Your task to perform on an android device: install app "AliExpress" Image 0: 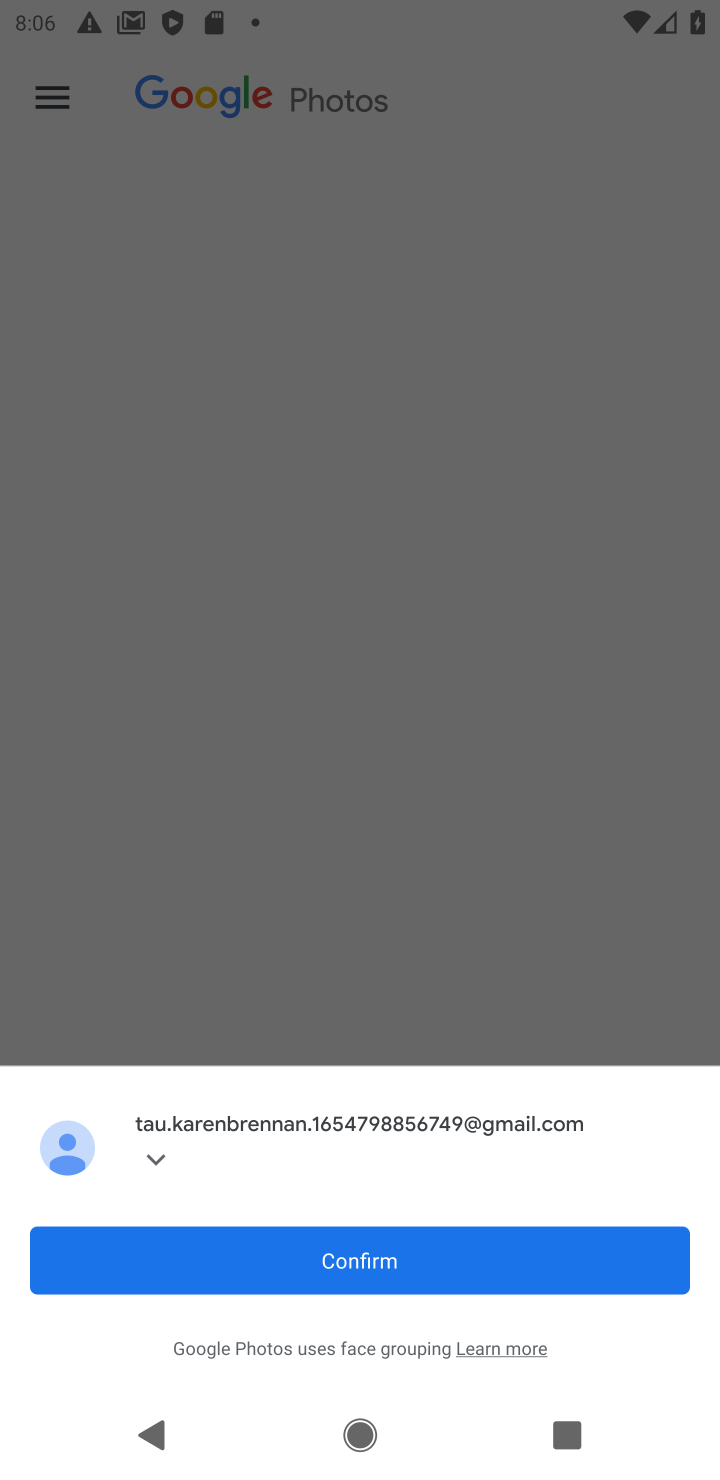
Step 0: press home button
Your task to perform on an android device: install app "AliExpress" Image 1: 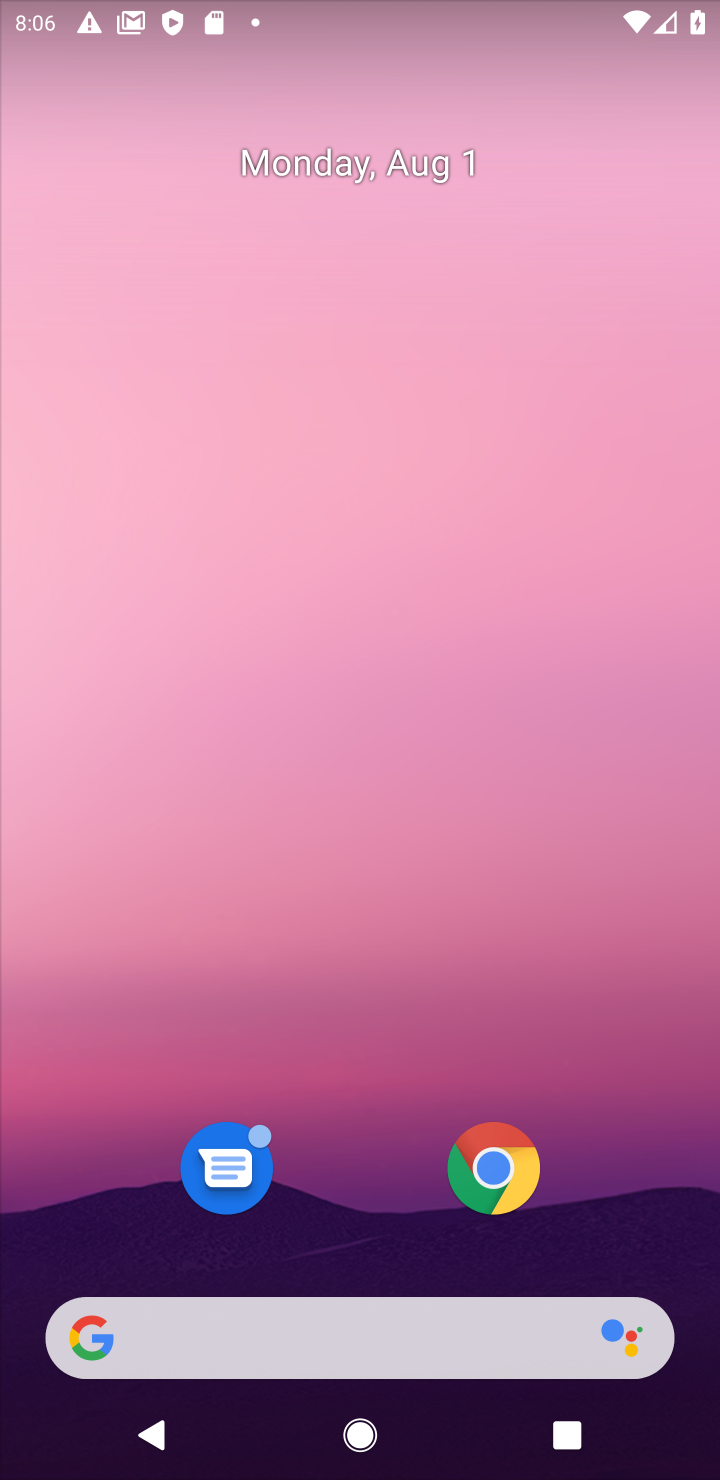
Step 1: drag from (294, 569) to (302, 185)
Your task to perform on an android device: install app "AliExpress" Image 2: 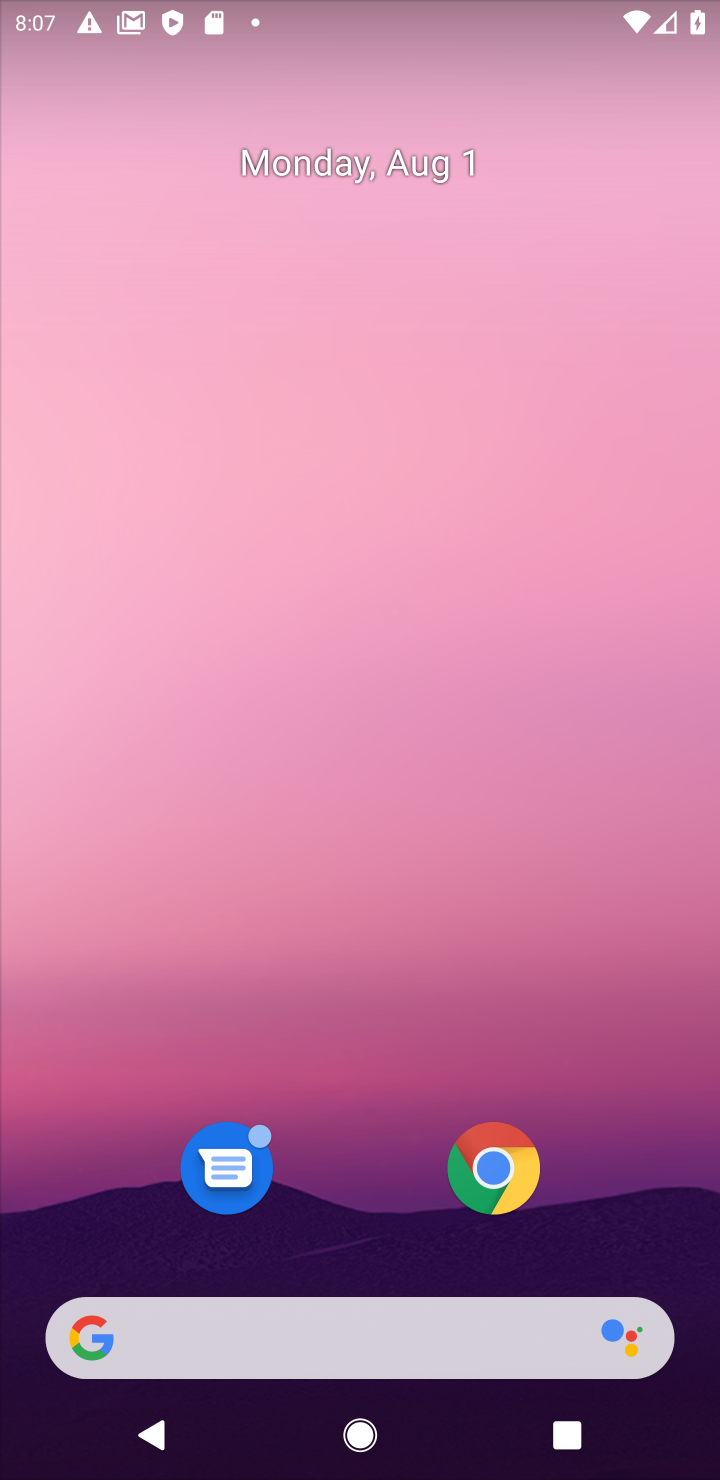
Step 2: drag from (371, 1201) to (406, 91)
Your task to perform on an android device: install app "AliExpress" Image 3: 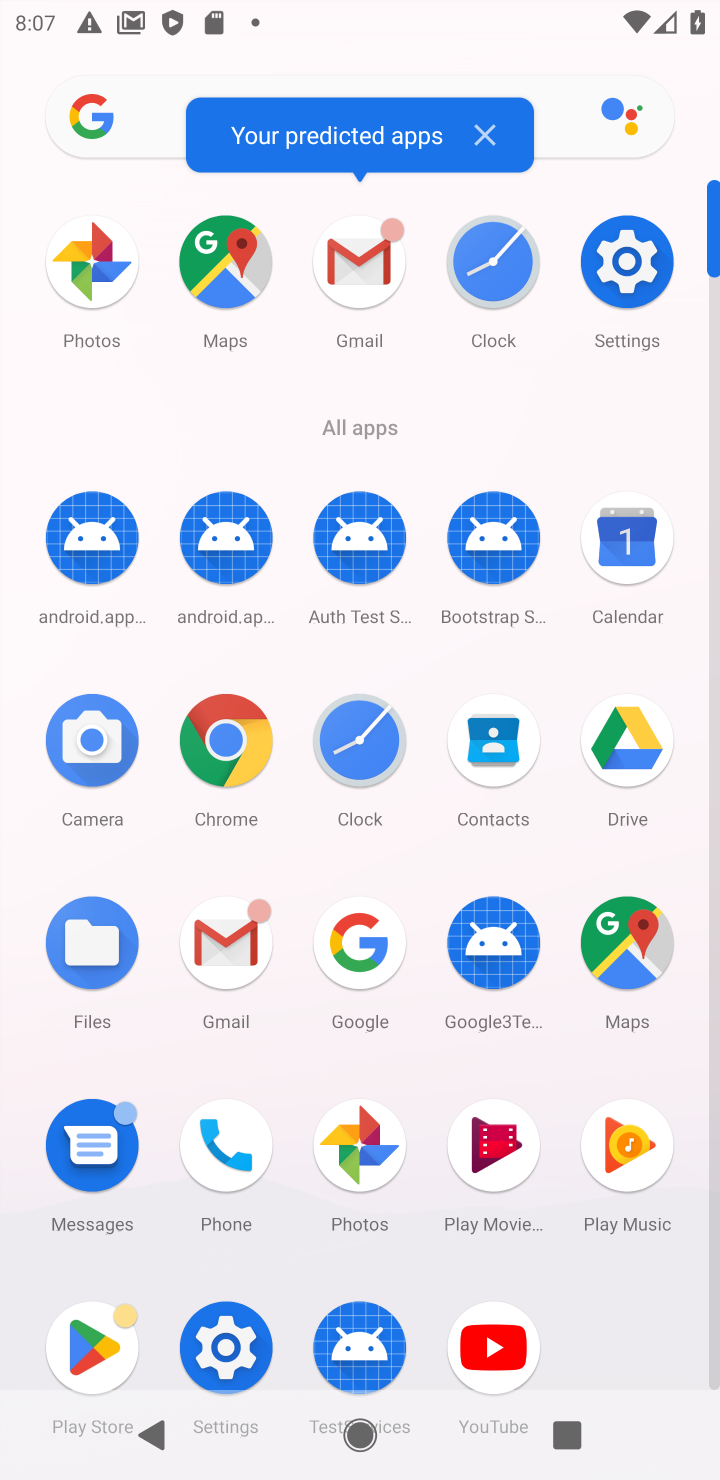
Step 3: click (82, 1326)
Your task to perform on an android device: install app "AliExpress" Image 4: 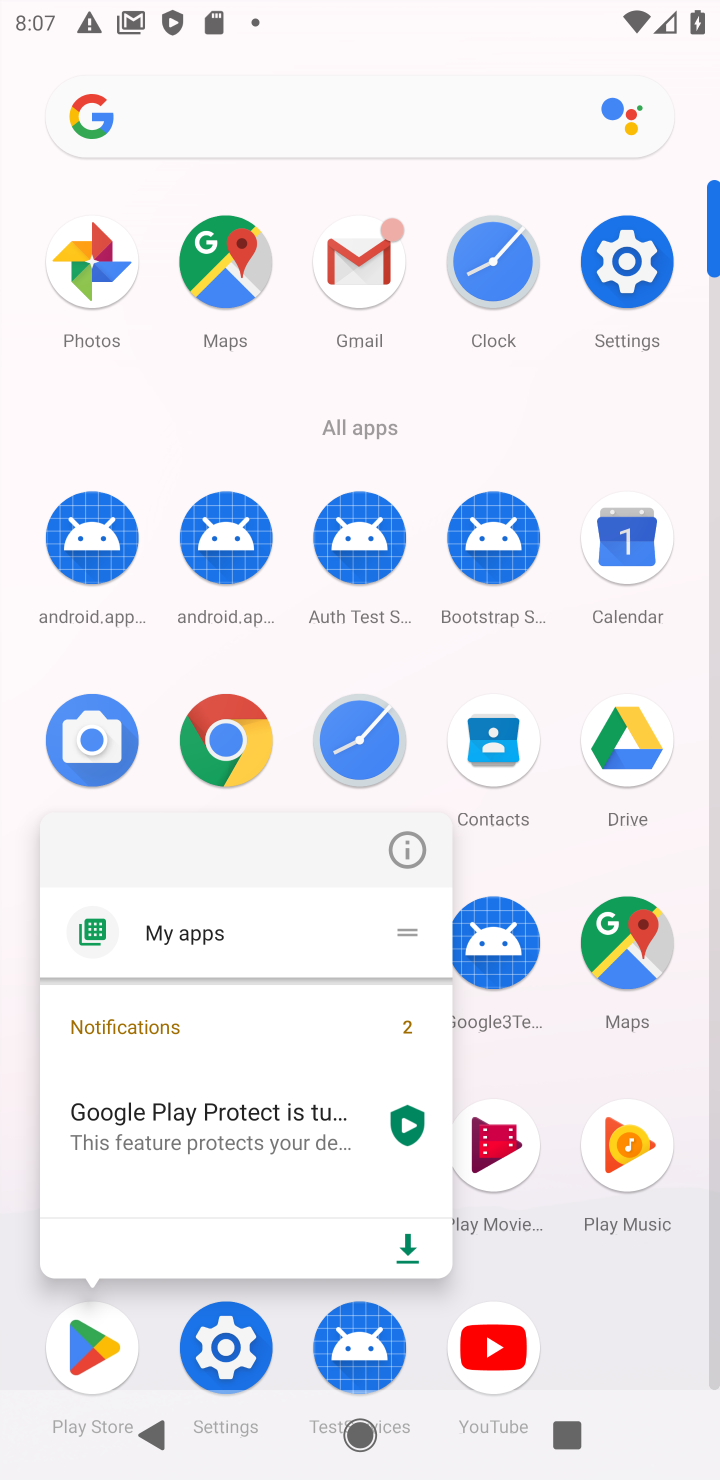
Step 4: click (88, 1314)
Your task to perform on an android device: install app "AliExpress" Image 5: 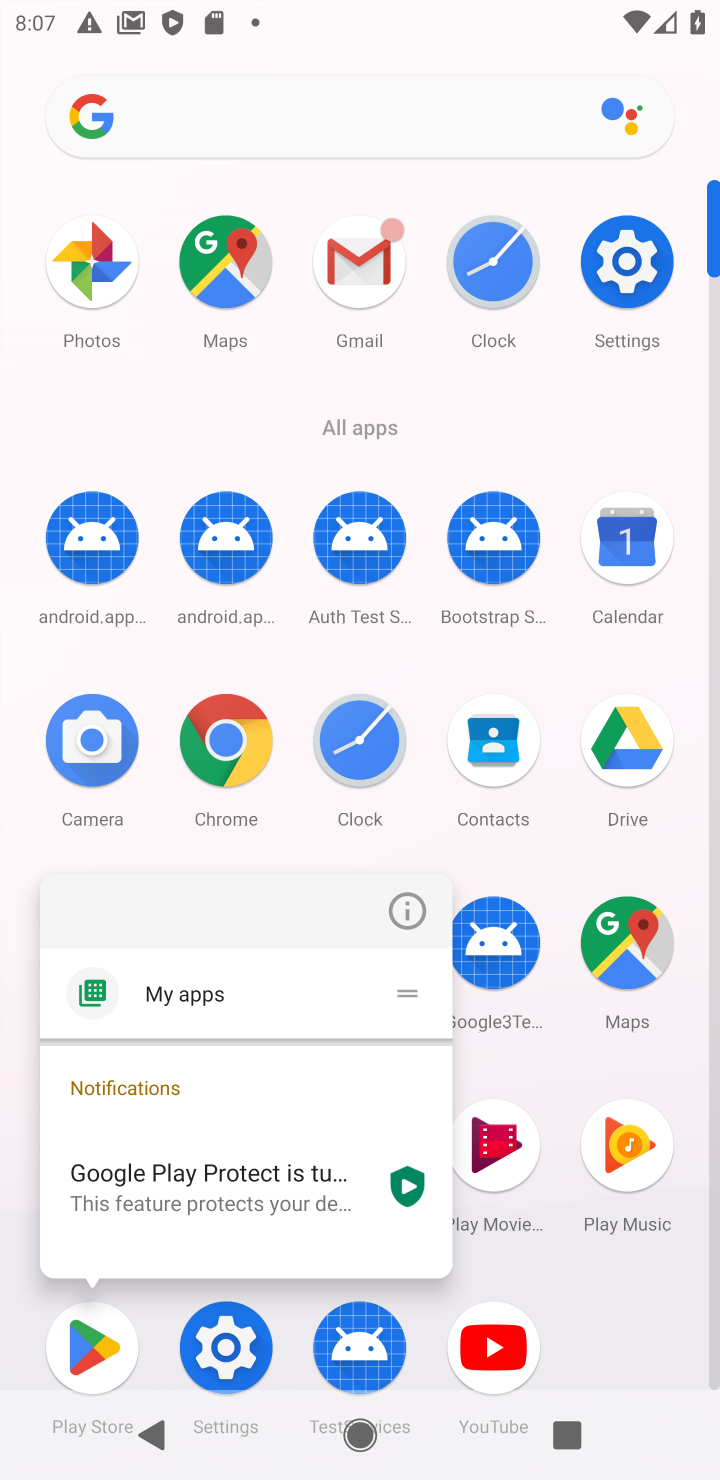
Step 5: click (95, 1325)
Your task to perform on an android device: install app "AliExpress" Image 6: 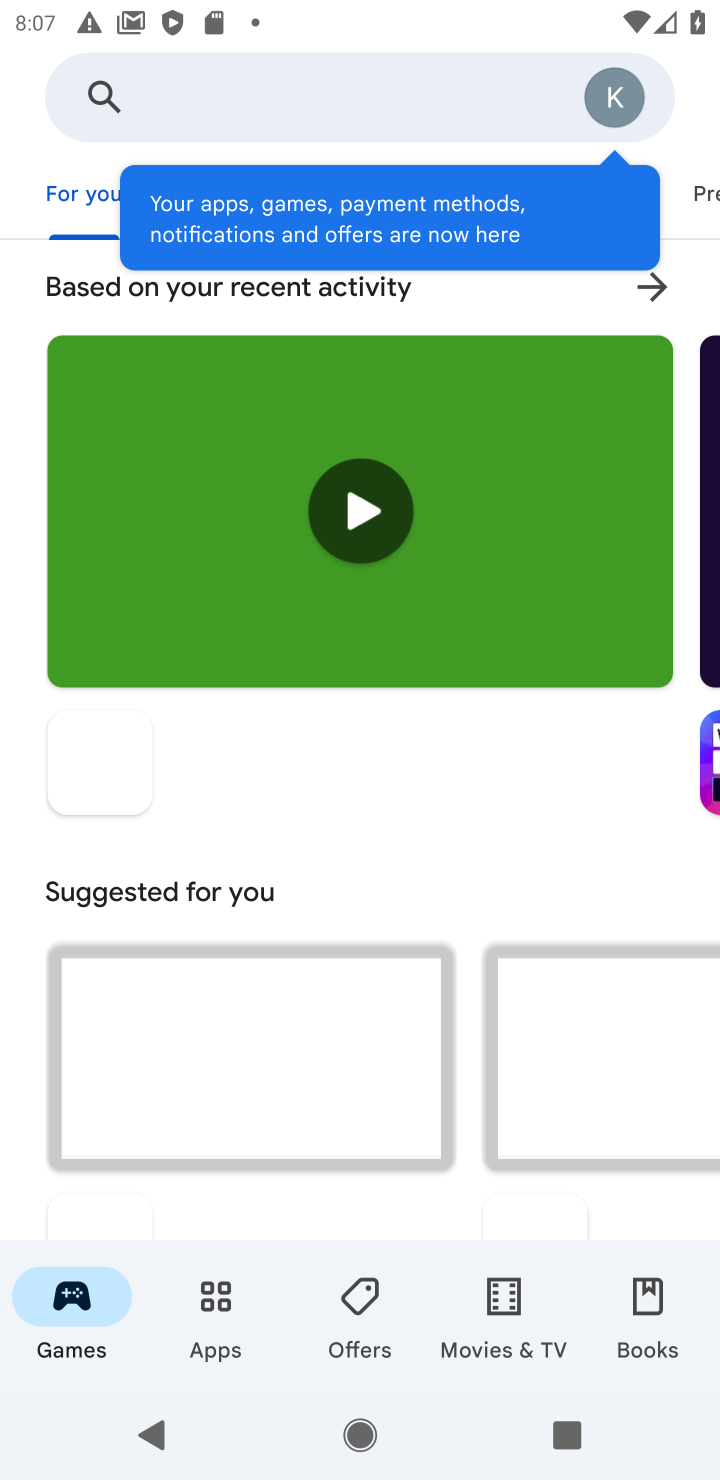
Step 6: click (343, 54)
Your task to perform on an android device: install app "AliExpress" Image 7: 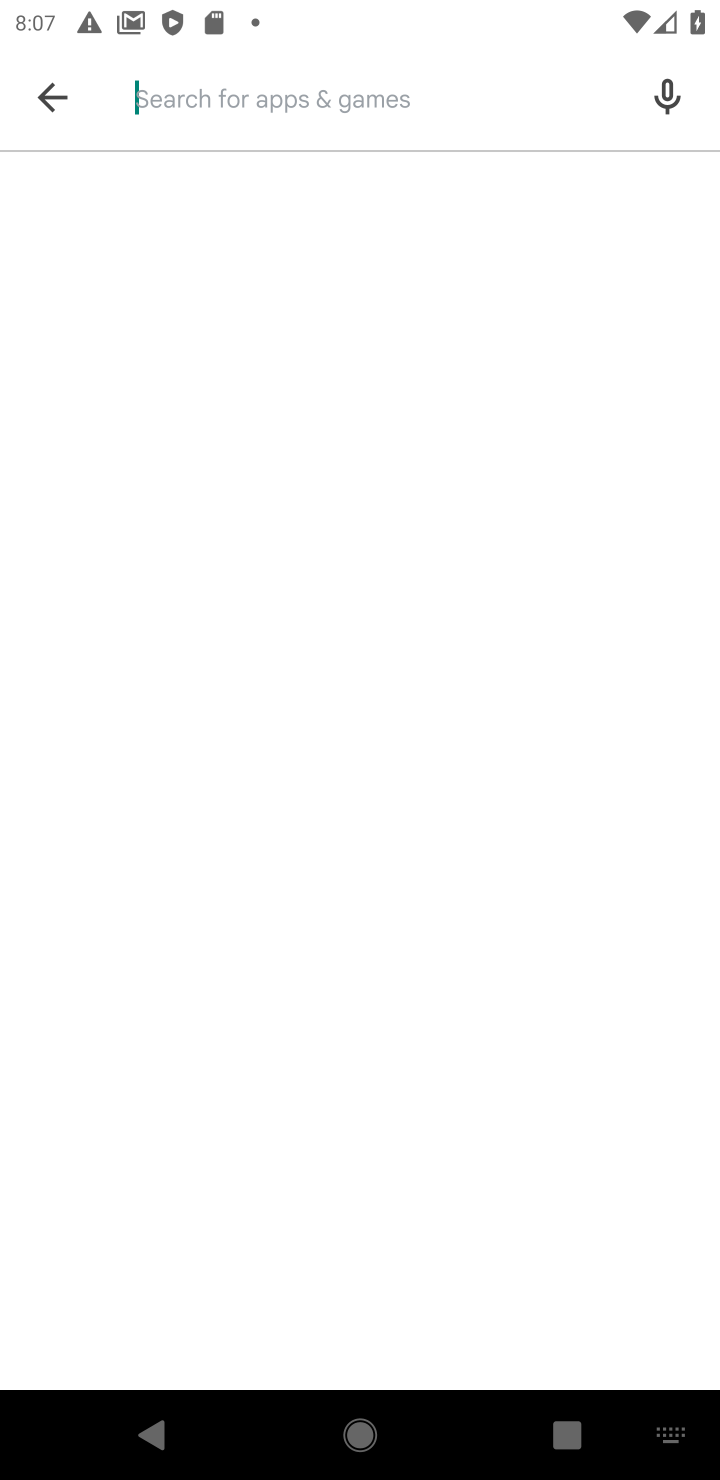
Step 7: type "AliExpress"
Your task to perform on an android device: install app "AliExpress" Image 8: 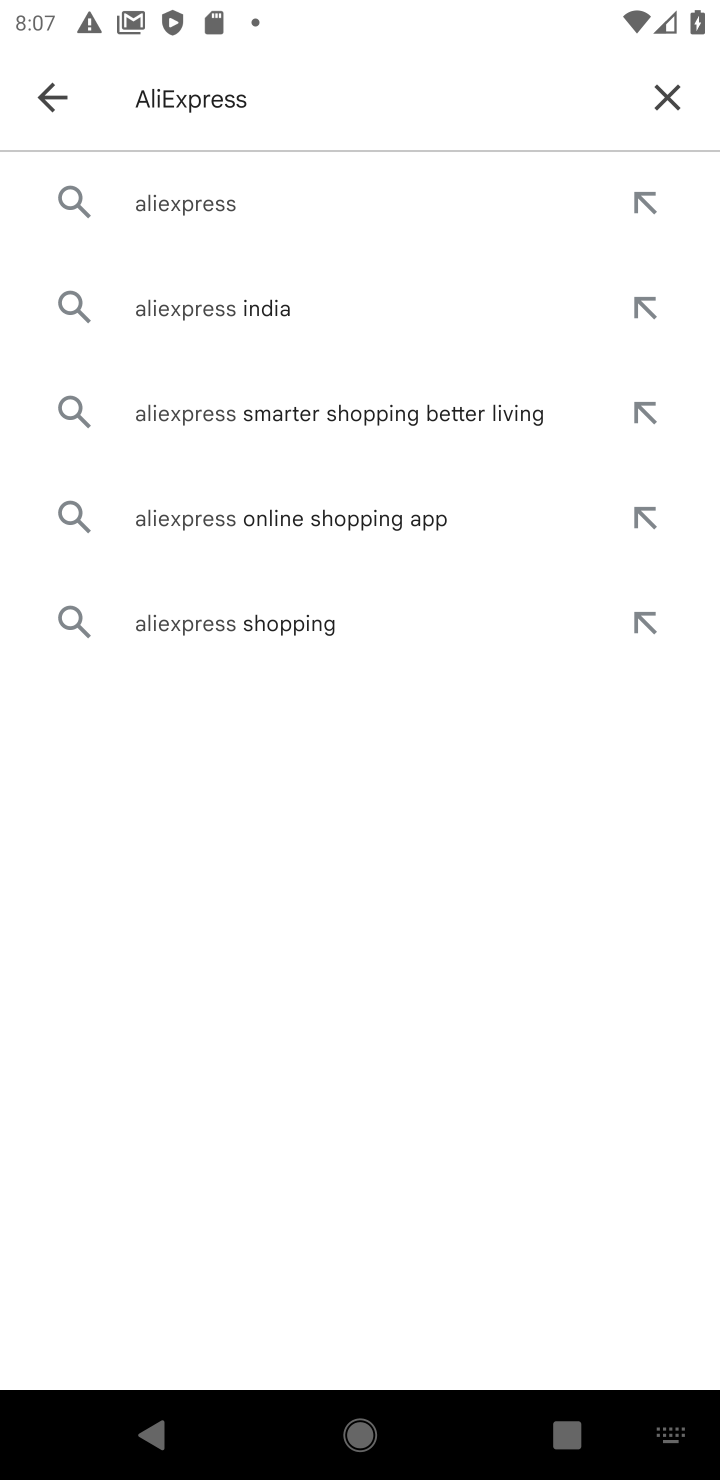
Step 8: click (259, 198)
Your task to perform on an android device: install app "AliExpress" Image 9: 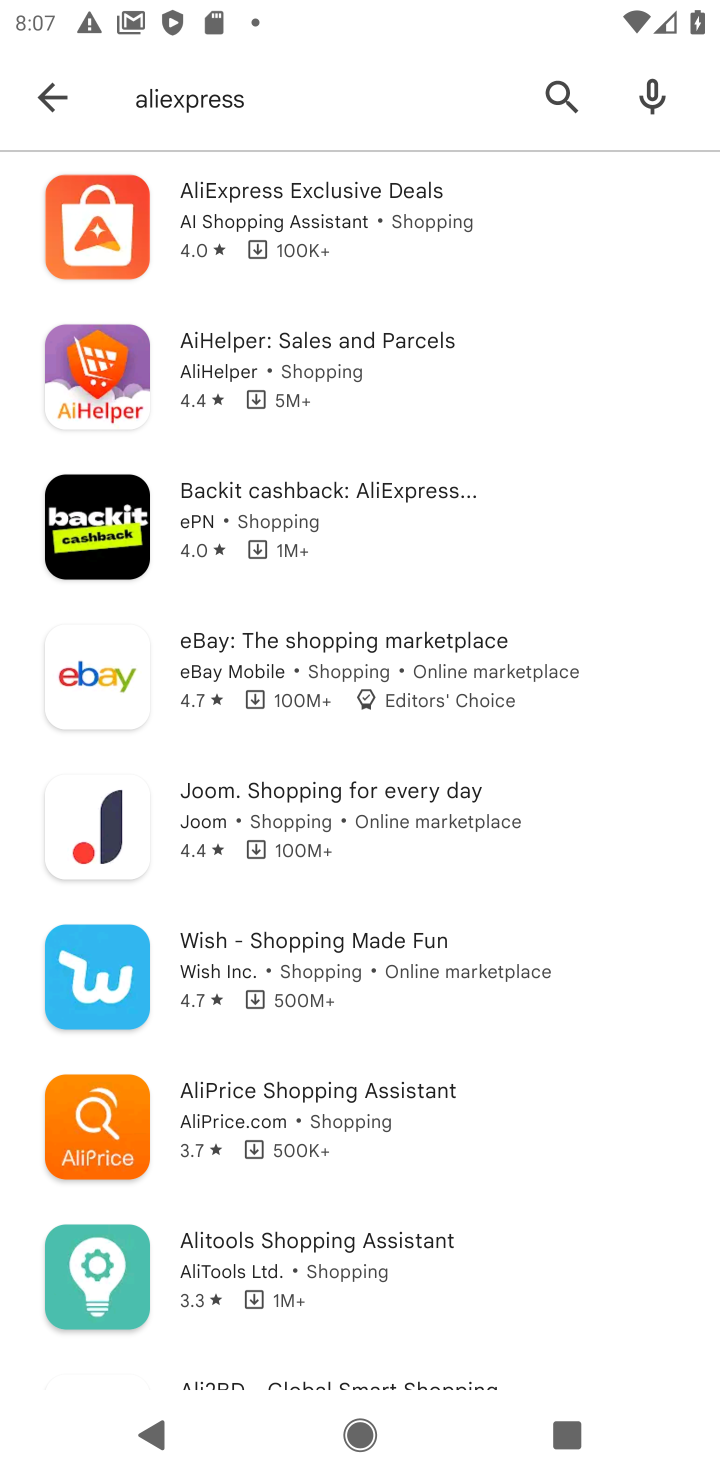
Step 9: click (239, 228)
Your task to perform on an android device: install app "AliExpress" Image 10: 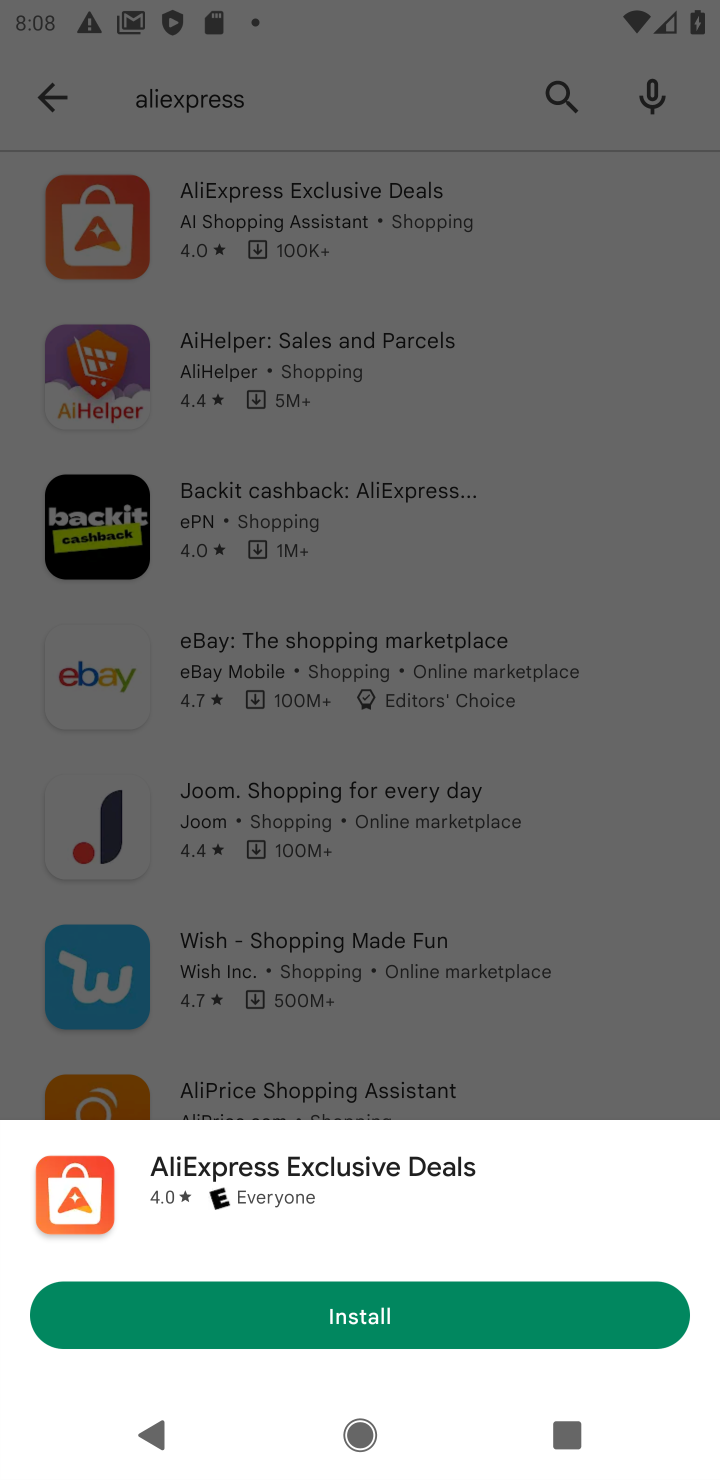
Step 10: click (260, 1323)
Your task to perform on an android device: install app "AliExpress" Image 11: 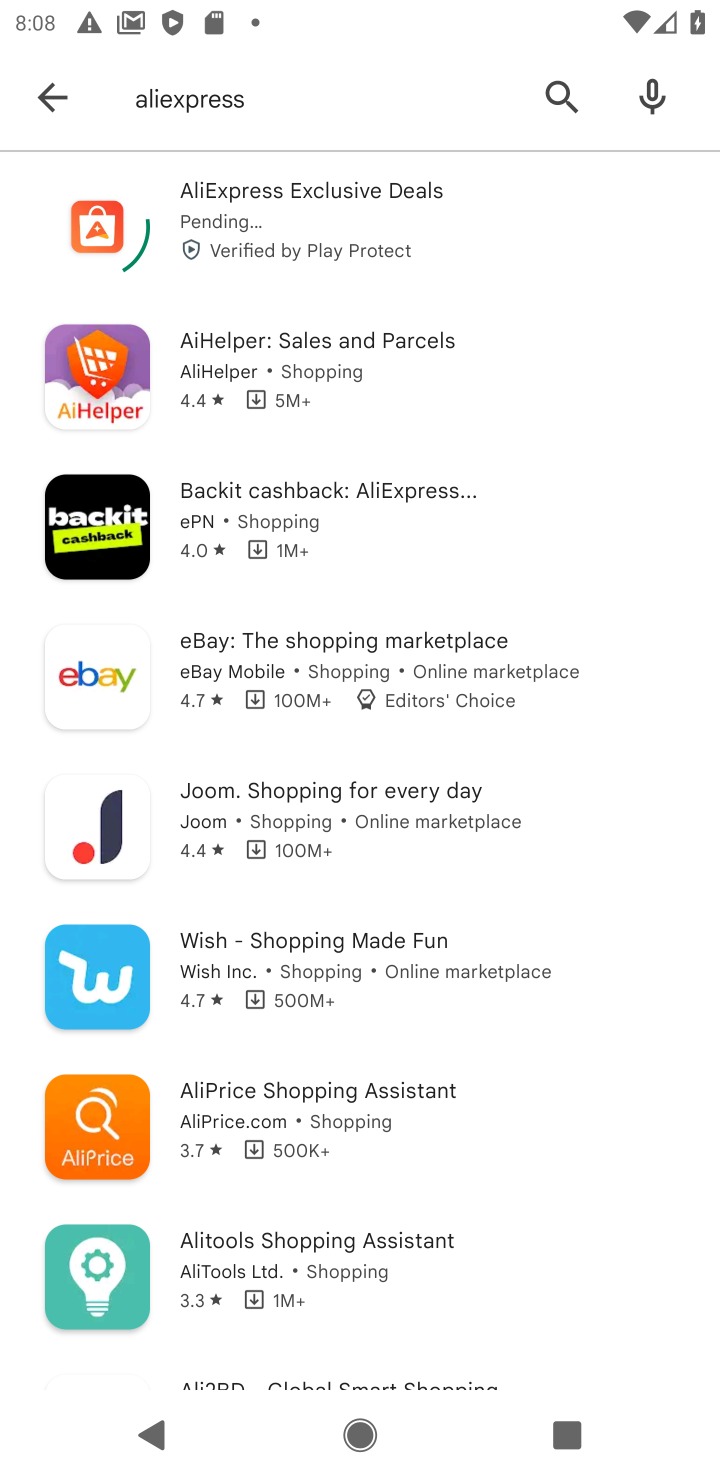
Step 11: click (83, 237)
Your task to perform on an android device: install app "AliExpress" Image 12: 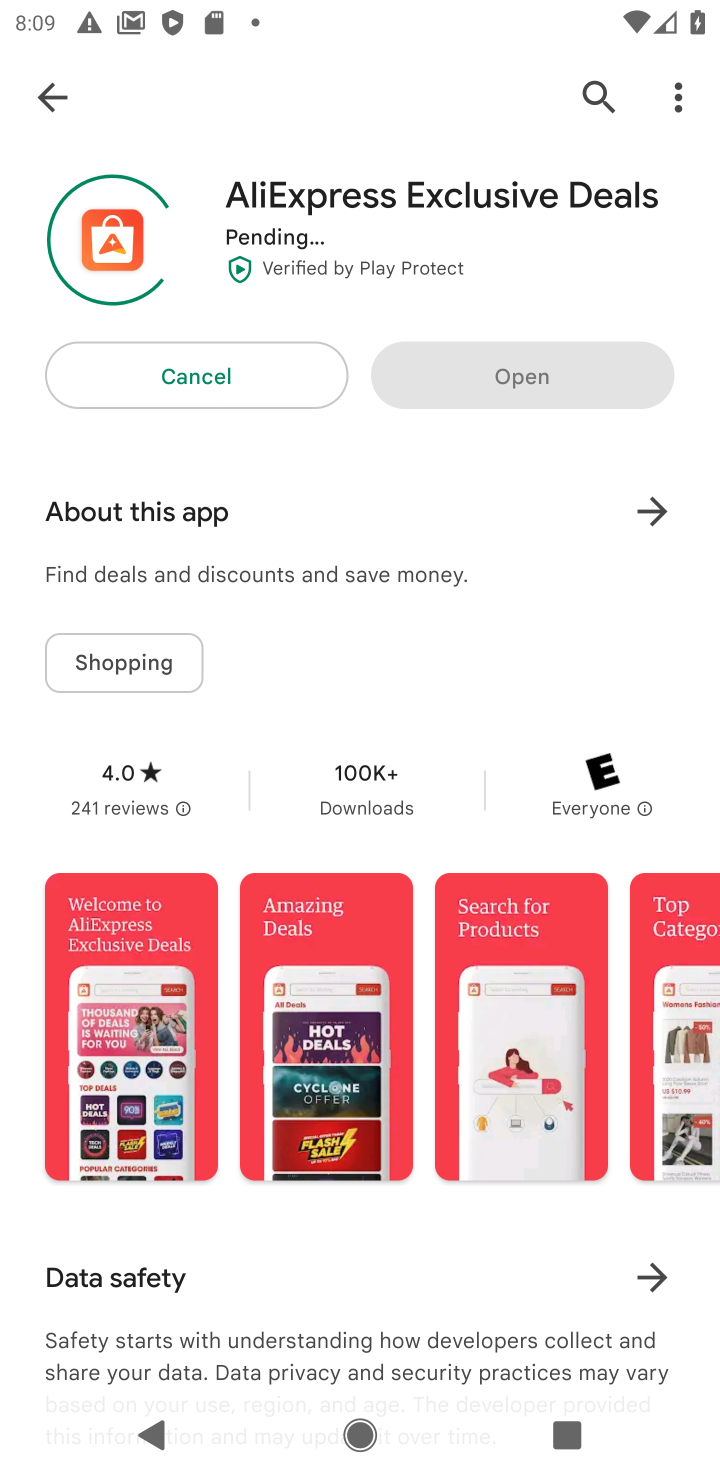
Step 12: click (39, 89)
Your task to perform on an android device: install app "AliExpress" Image 13: 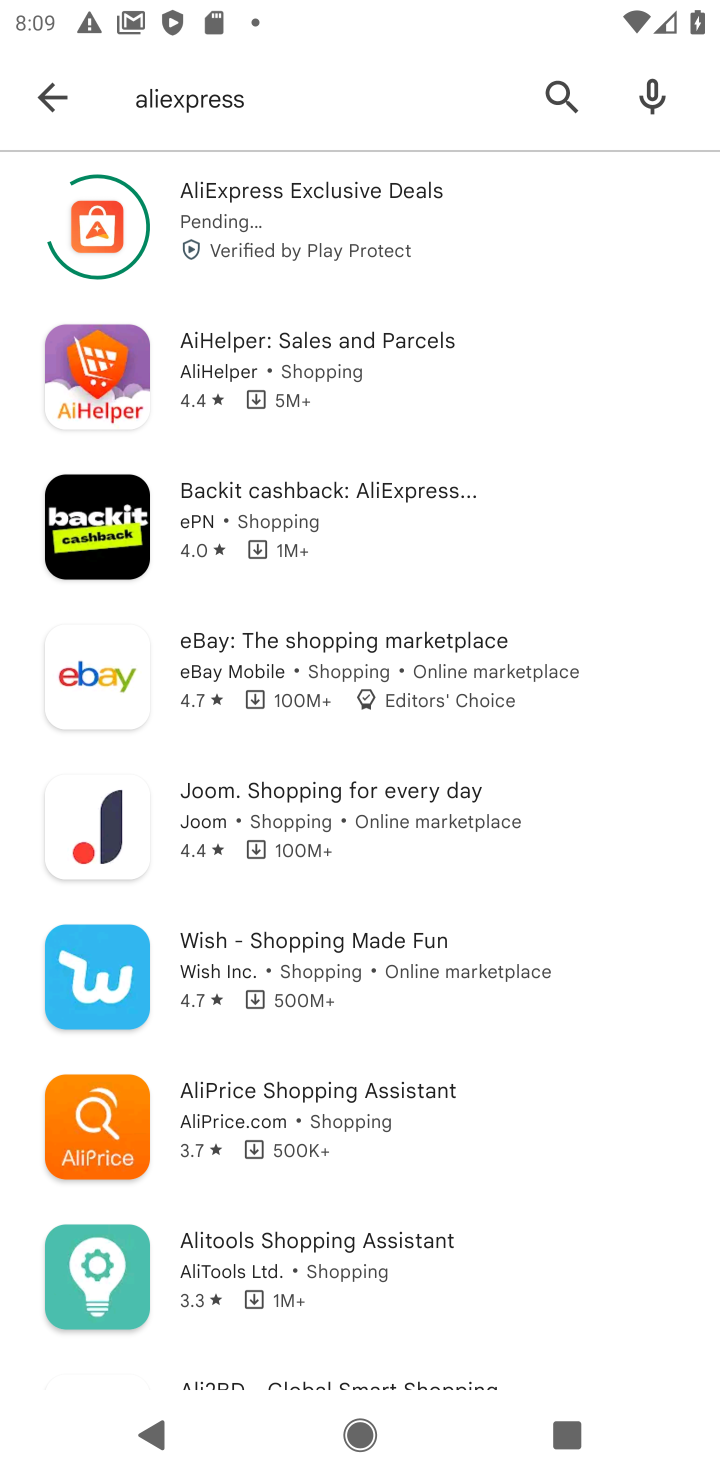
Step 13: click (54, 94)
Your task to perform on an android device: install app "AliExpress" Image 14: 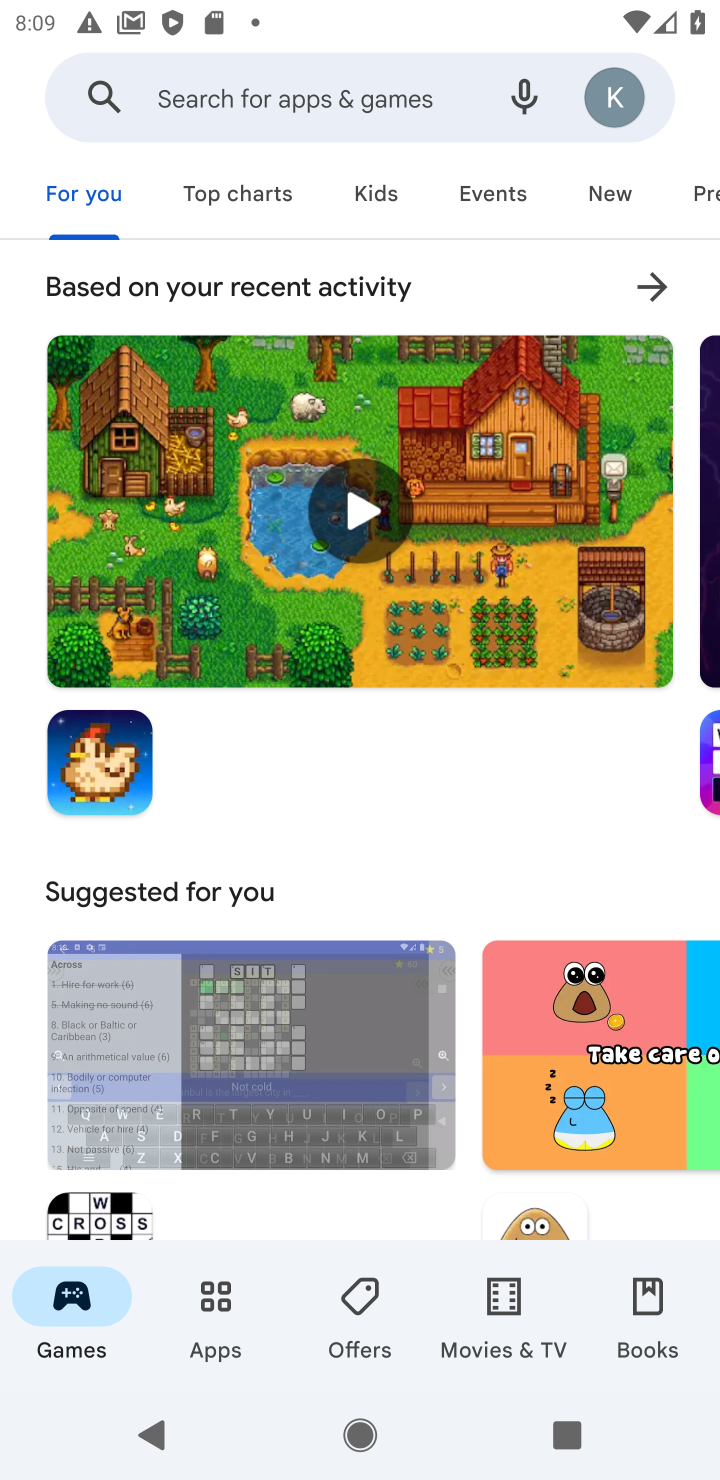
Step 14: click (631, 99)
Your task to perform on an android device: install app "AliExpress" Image 15: 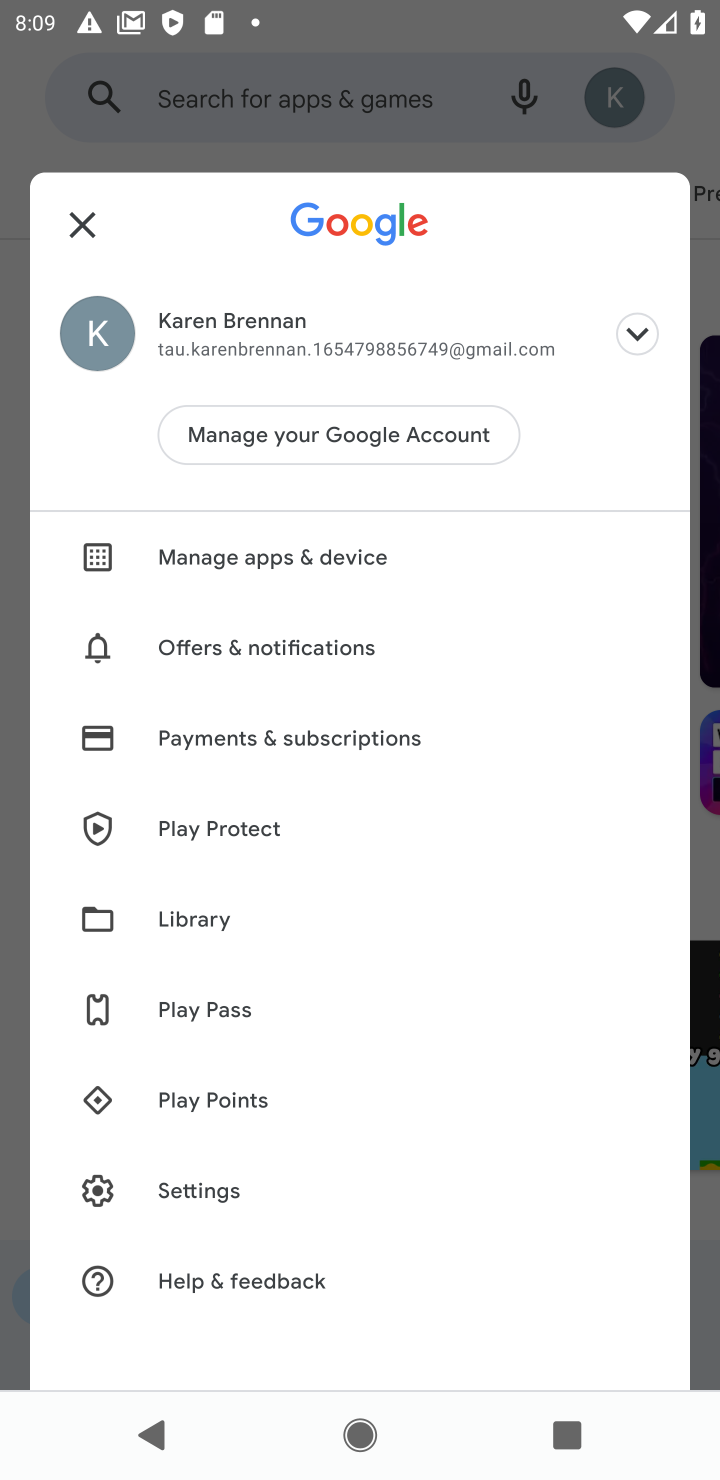
Step 15: click (309, 567)
Your task to perform on an android device: install app "AliExpress" Image 16: 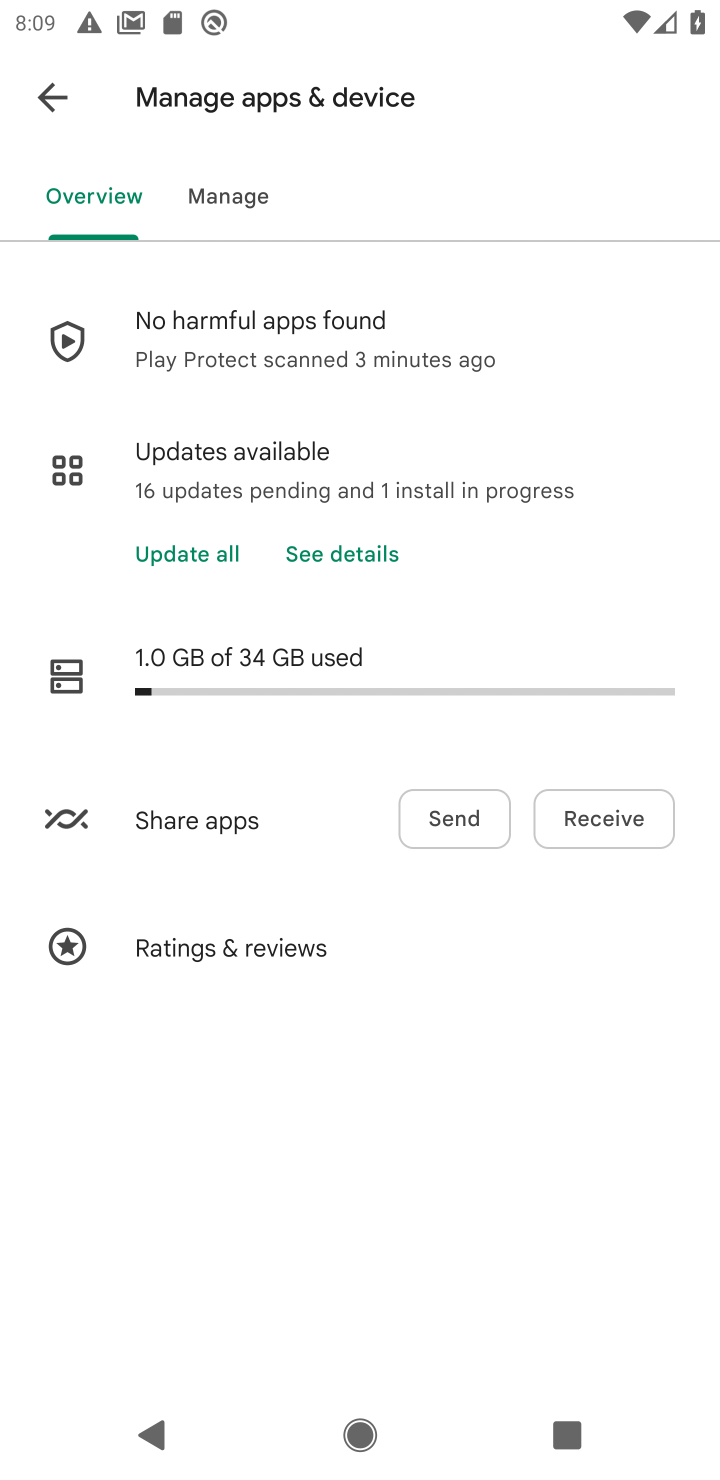
Step 16: click (304, 480)
Your task to perform on an android device: install app "AliExpress" Image 17: 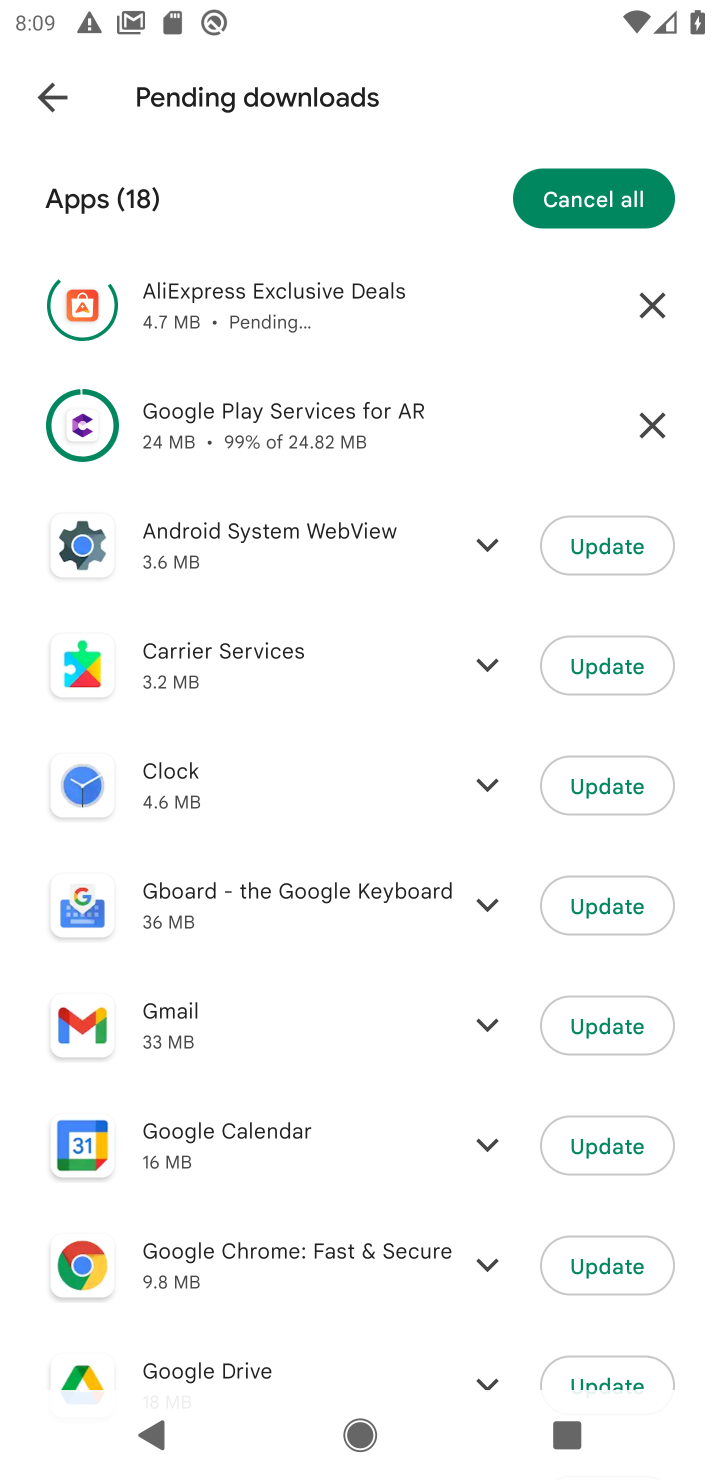
Step 17: click (642, 428)
Your task to perform on an android device: install app "AliExpress" Image 18: 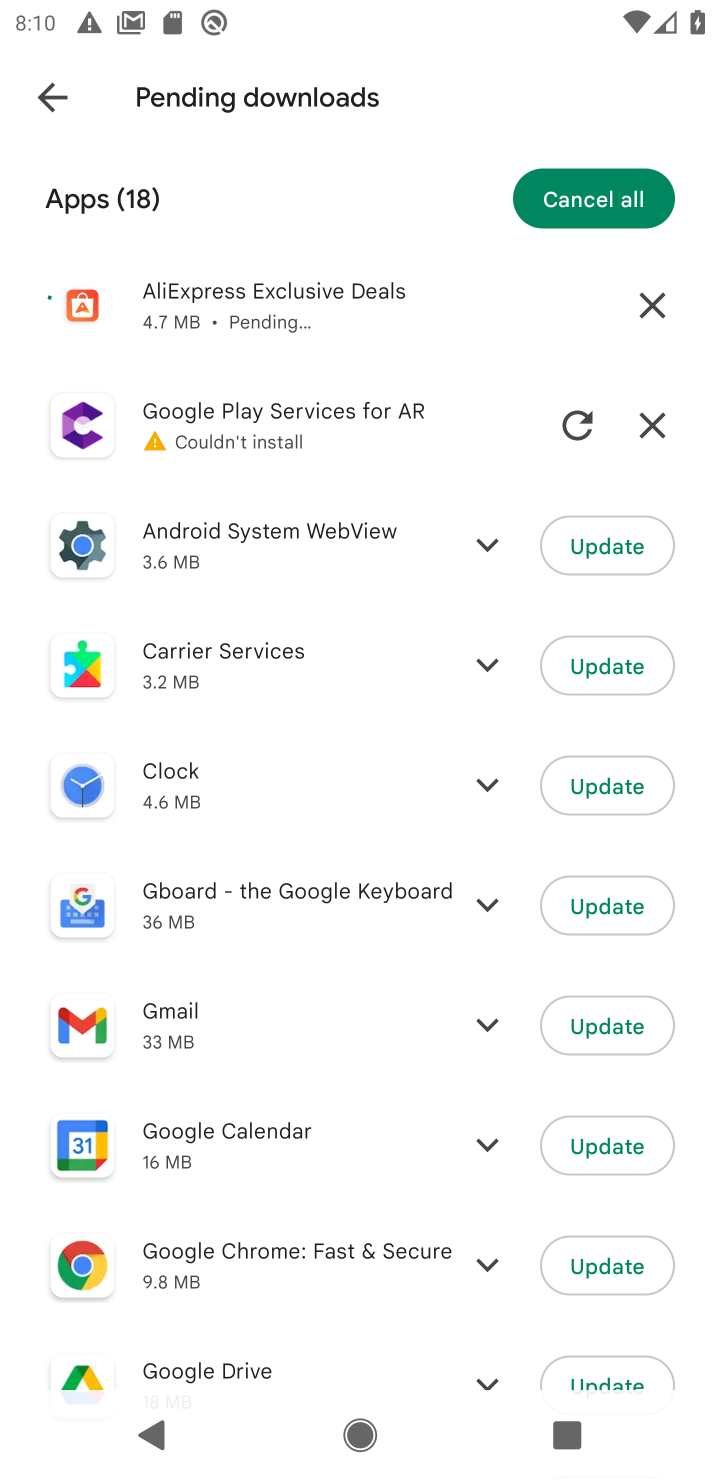
Step 18: click (657, 438)
Your task to perform on an android device: install app "AliExpress" Image 19: 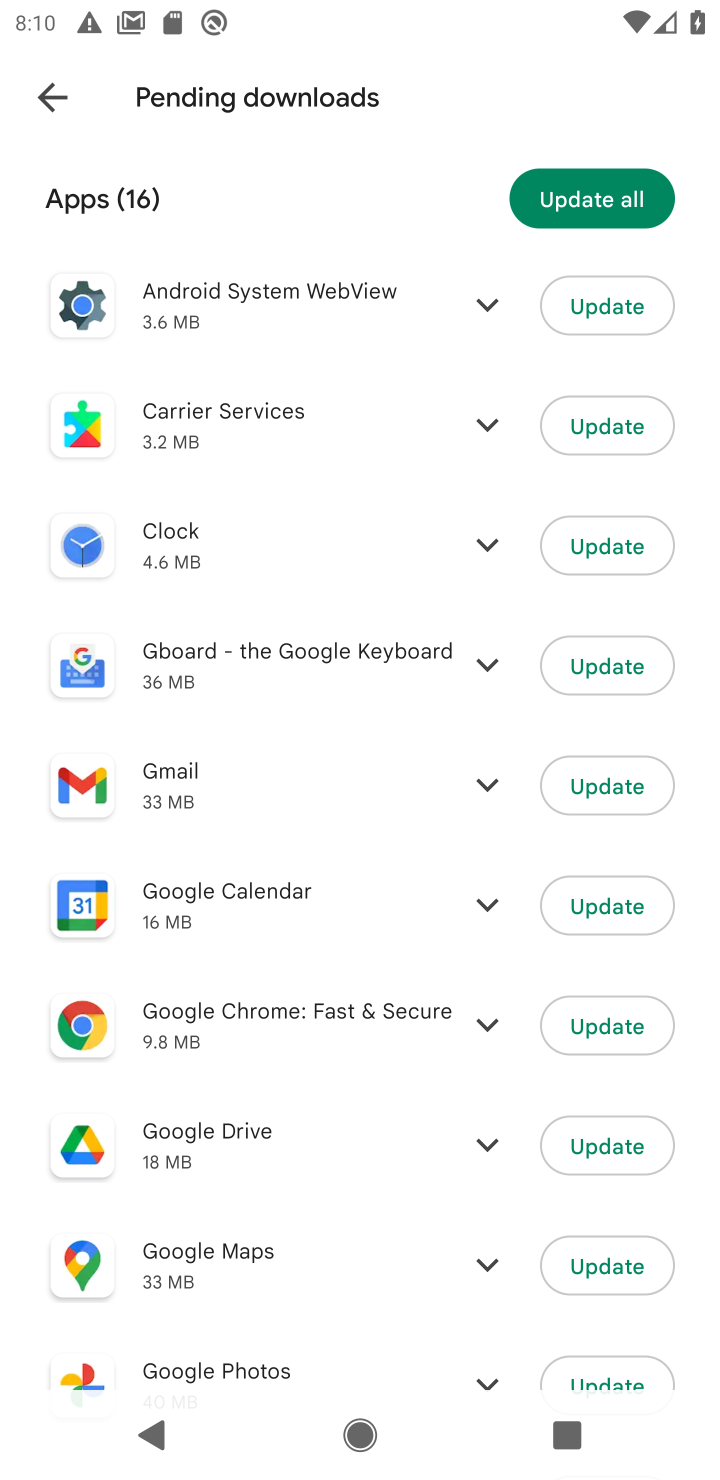
Step 19: task complete